Your task to perform on an android device: Open Youtube and go to the subscriptions tab Image 0: 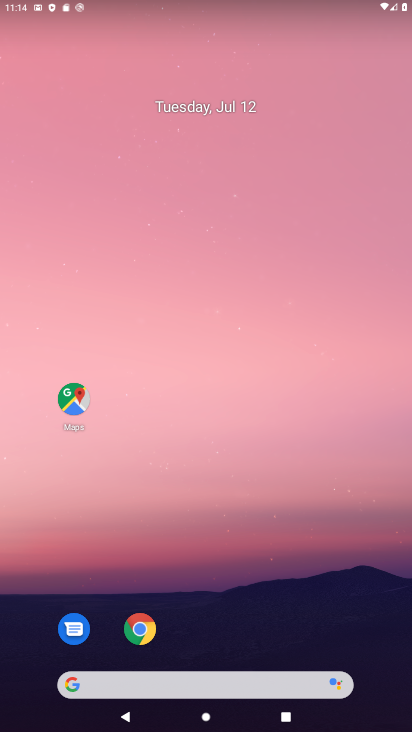
Step 0: drag from (361, 637) to (411, 560)
Your task to perform on an android device: Open Youtube and go to the subscriptions tab Image 1: 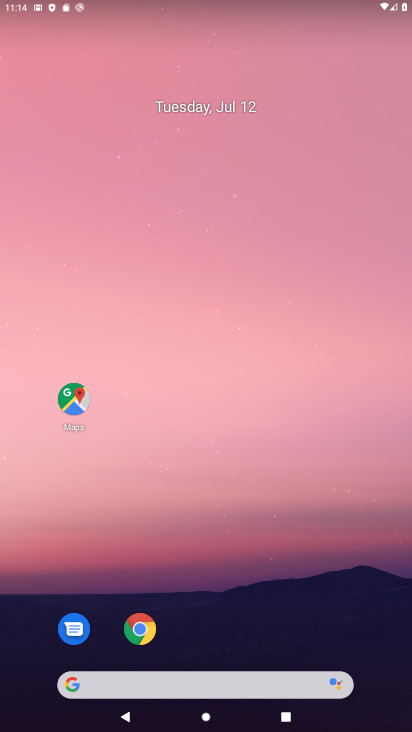
Step 1: drag from (385, 631) to (212, 58)
Your task to perform on an android device: Open Youtube and go to the subscriptions tab Image 2: 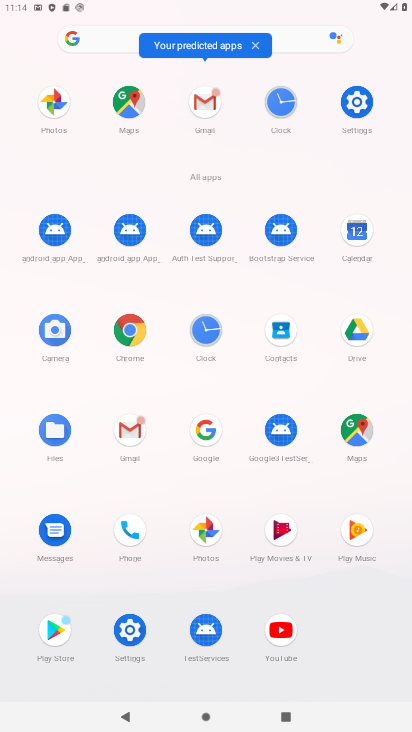
Step 2: click (282, 637)
Your task to perform on an android device: Open Youtube and go to the subscriptions tab Image 3: 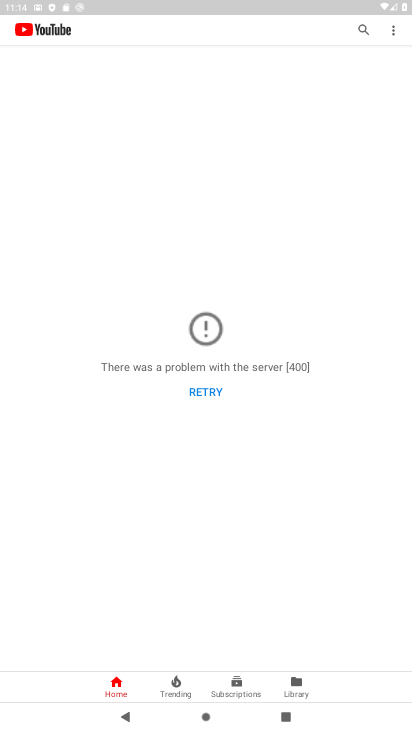
Step 3: click (237, 685)
Your task to perform on an android device: Open Youtube and go to the subscriptions tab Image 4: 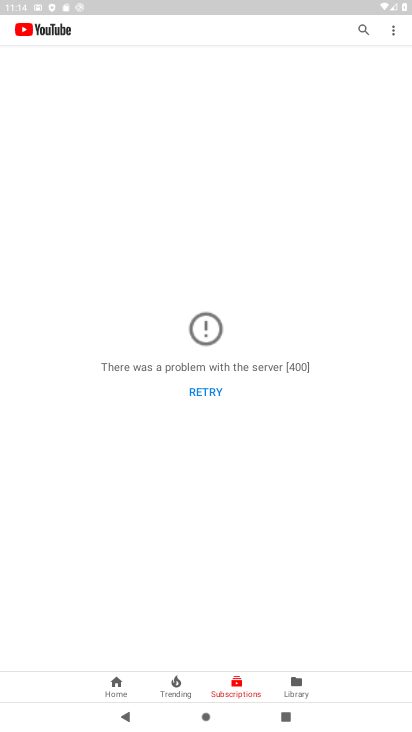
Step 4: task complete